Your task to perform on an android device: snooze an email in the gmail app Image 0: 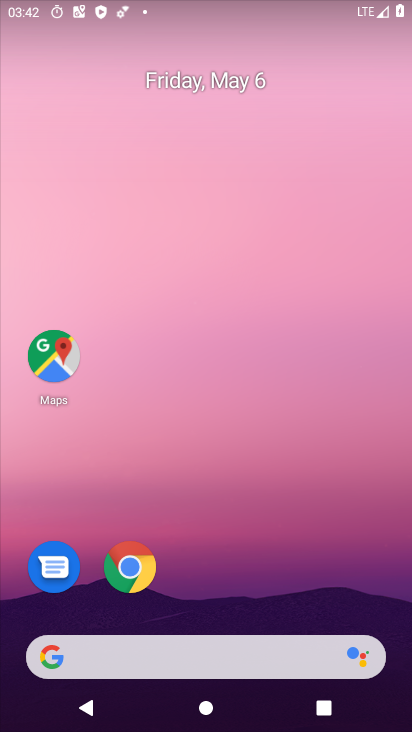
Step 0: drag from (109, 616) to (164, 201)
Your task to perform on an android device: snooze an email in the gmail app Image 1: 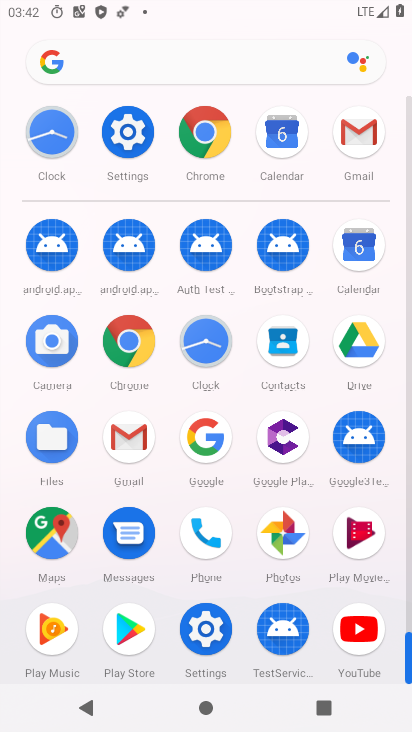
Step 1: click (347, 130)
Your task to perform on an android device: snooze an email in the gmail app Image 2: 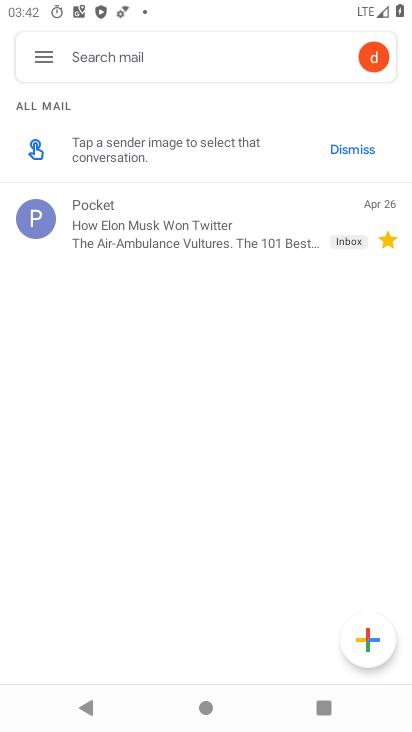
Step 2: click (233, 228)
Your task to perform on an android device: snooze an email in the gmail app Image 3: 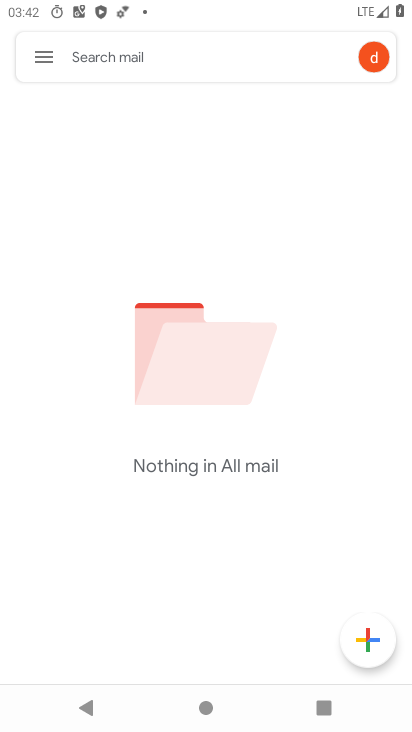
Step 3: click (32, 61)
Your task to perform on an android device: snooze an email in the gmail app Image 4: 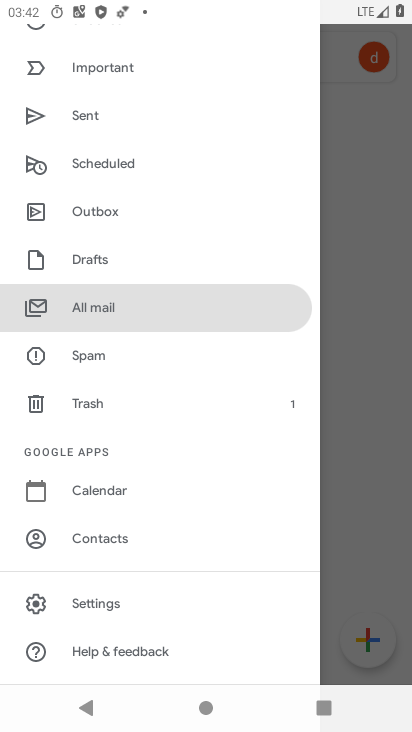
Step 4: click (112, 319)
Your task to perform on an android device: snooze an email in the gmail app Image 5: 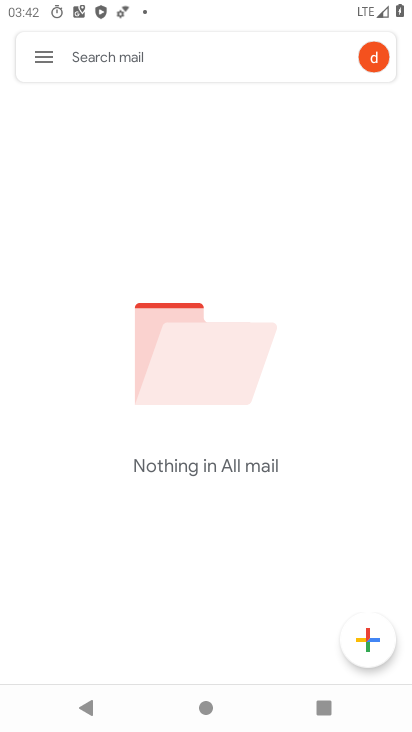
Step 5: task complete